Your task to perform on an android device: Open Google Chrome and click the shortcut for Amazon.com Image 0: 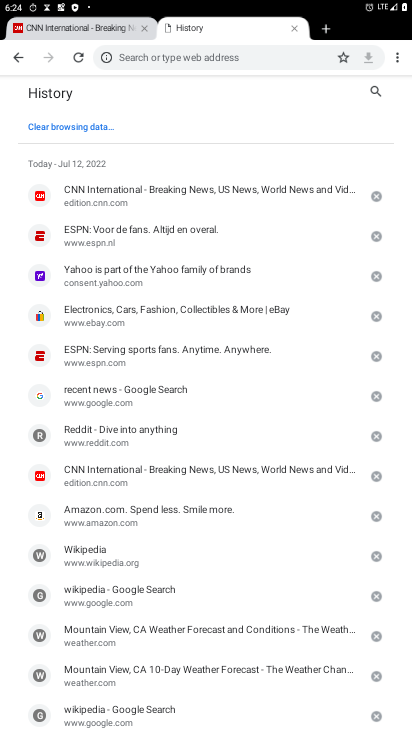
Step 0: press home button
Your task to perform on an android device: Open Google Chrome and click the shortcut for Amazon.com Image 1: 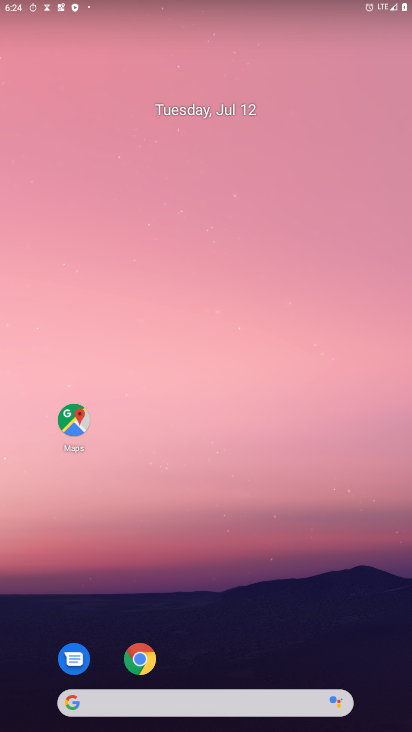
Step 1: click (143, 654)
Your task to perform on an android device: Open Google Chrome and click the shortcut for Amazon.com Image 2: 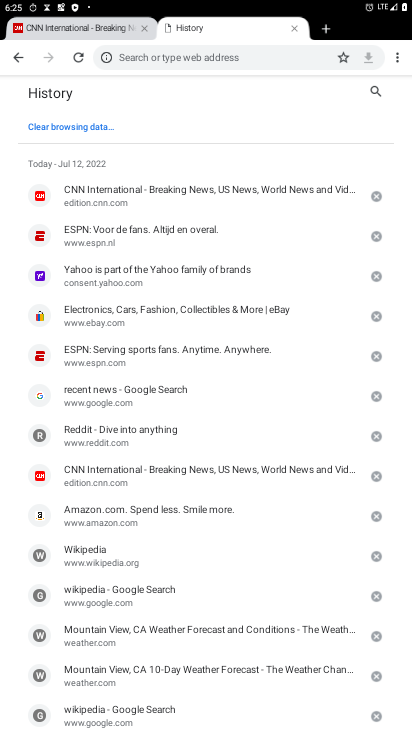
Step 2: click (16, 56)
Your task to perform on an android device: Open Google Chrome and click the shortcut for Amazon.com Image 3: 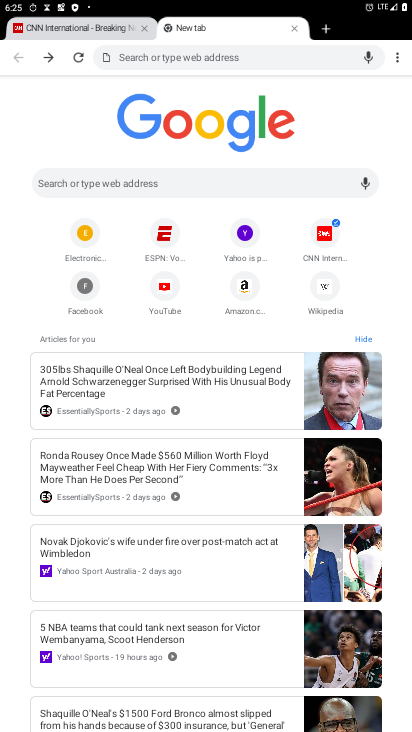
Step 3: click (242, 301)
Your task to perform on an android device: Open Google Chrome and click the shortcut for Amazon.com Image 4: 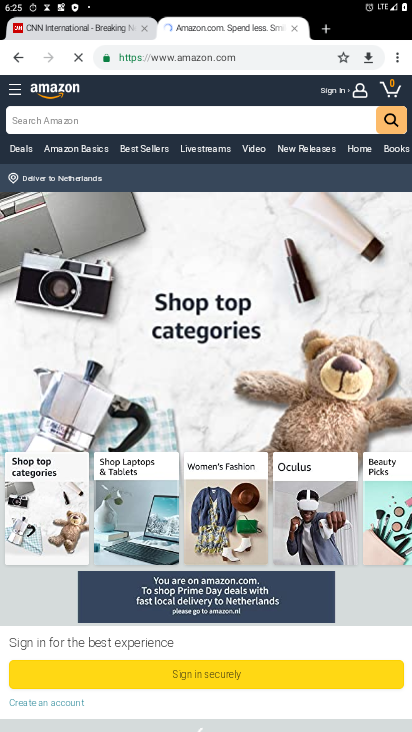
Step 4: task complete